Your task to perform on an android device: Add "alienware area 51" to the cart on bestbuy, then select checkout. Image 0: 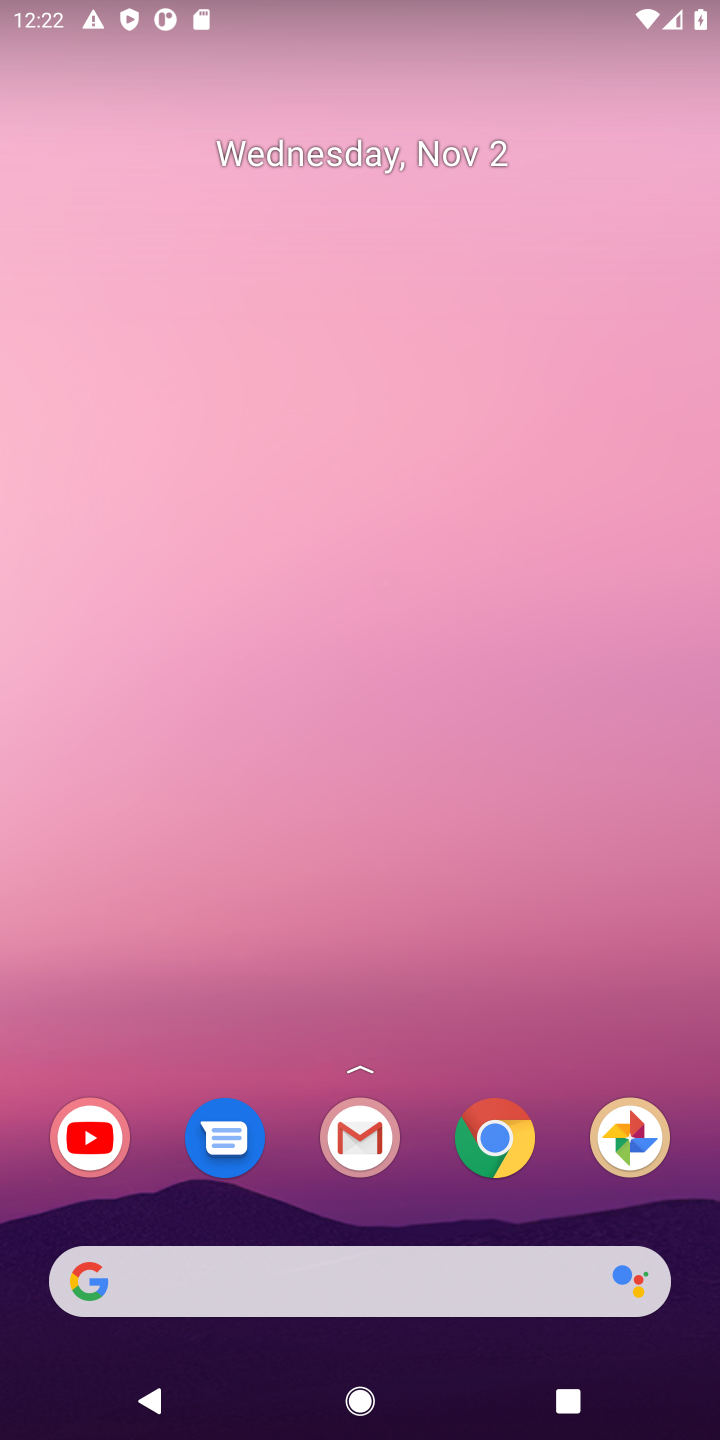
Step 0: press home button
Your task to perform on an android device: Add "alienware area 51" to the cart on bestbuy, then select checkout. Image 1: 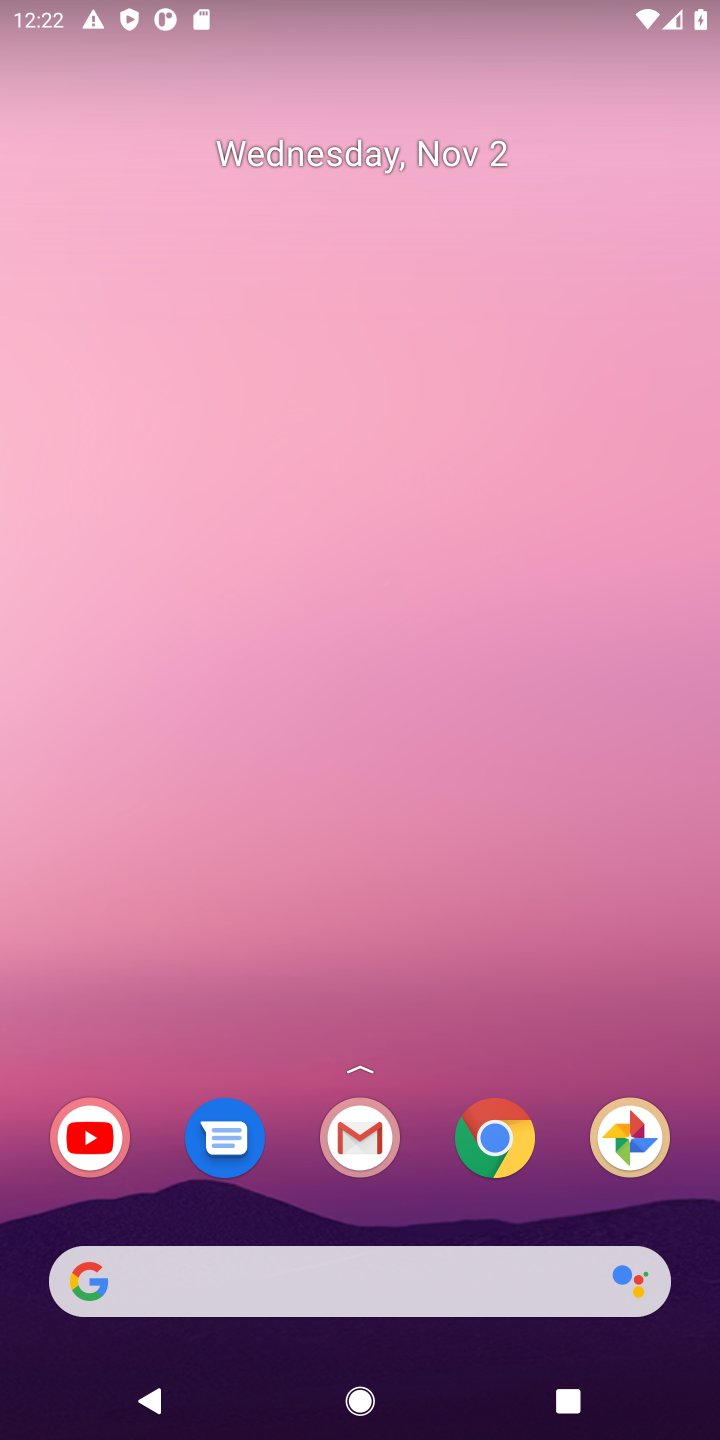
Step 1: click (142, 1276)
Your task to perform on an android device: Add "alienware area 51" to the cart on bestbuy, then select checkout. Image 2: 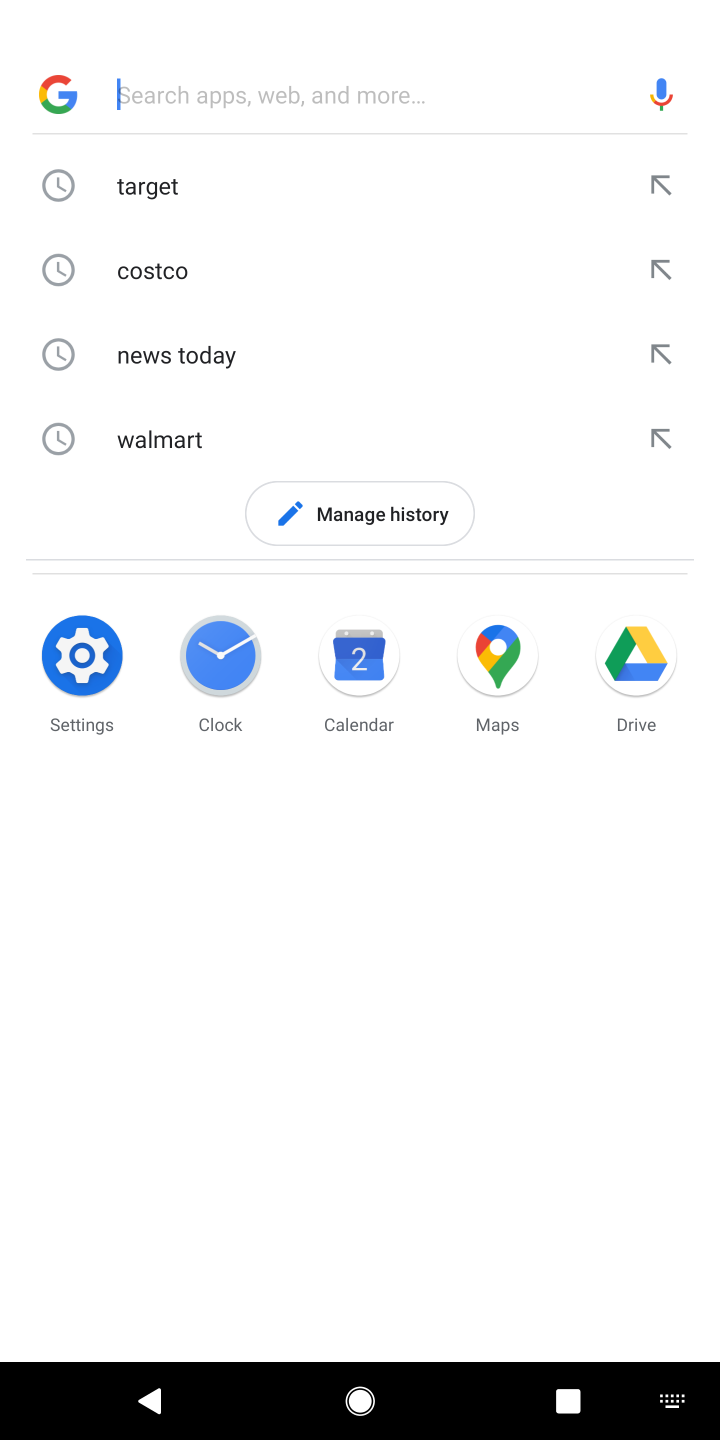
Step 2: type "bestbuy"
Your task to perform on an android device: Add "alienware area 51" to the cart on bestbuy, then select checkout. Image 3: 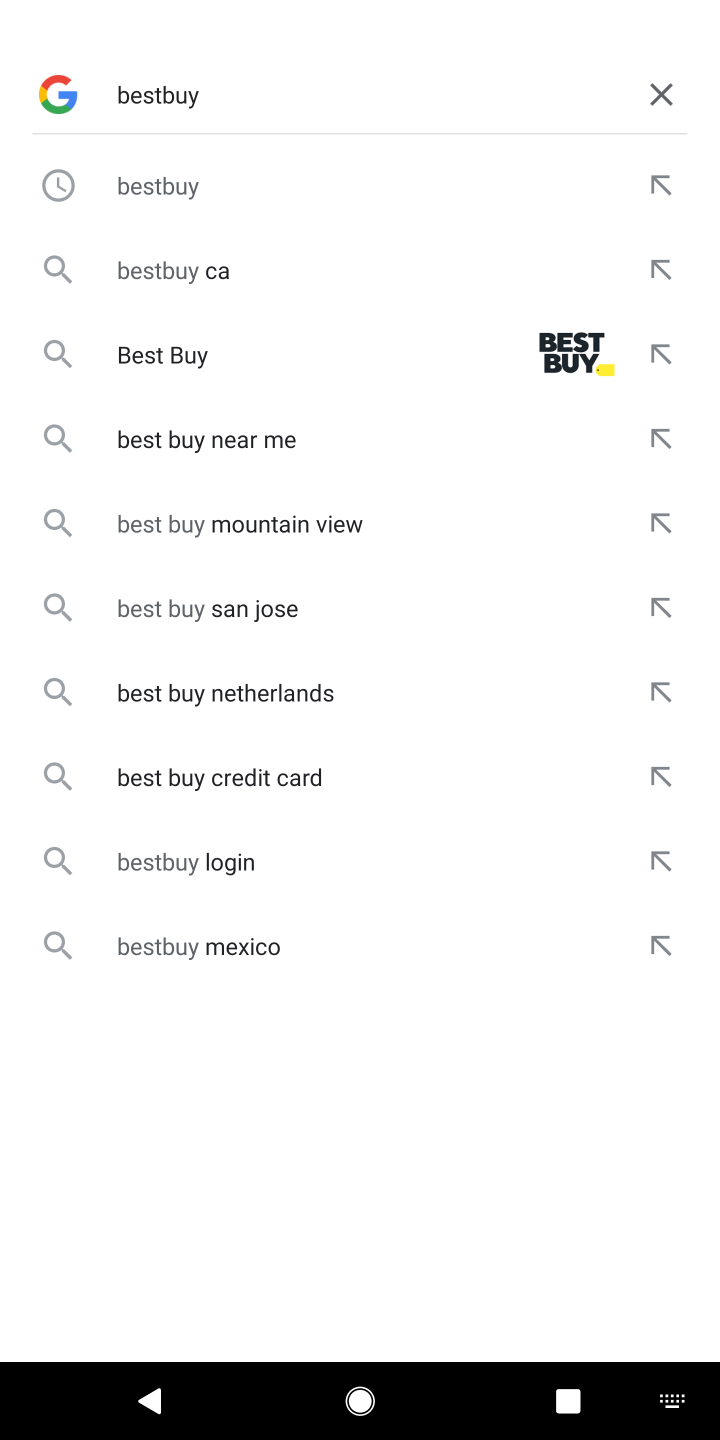
Step 3: press enter
Your task to perform on an android device: Add "alienware area 51" to the cart on bestbuy, then select checkout. Image 4: 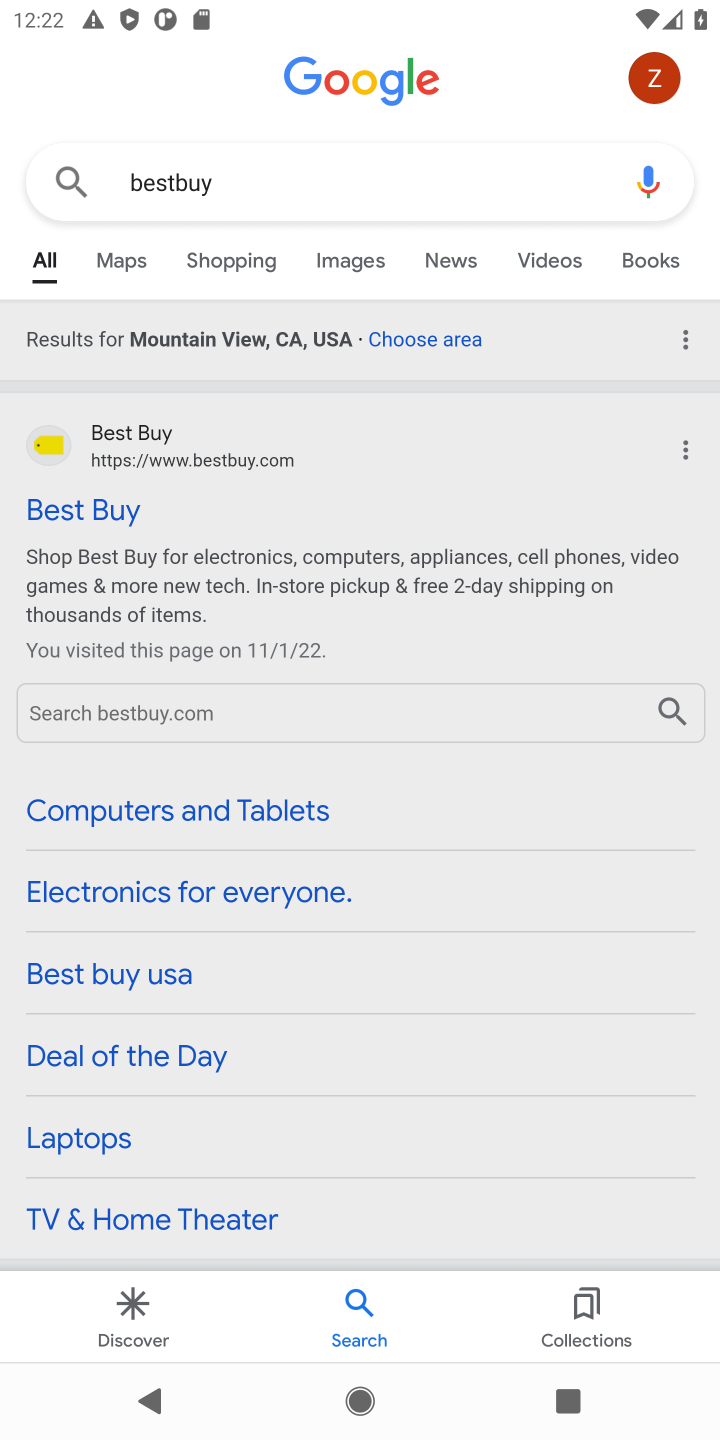
Step 4: click (104, 505)
Your task to perform on an android device: Add "alienware area 51" to the cart on bestbuy, then select checkout. Image 5: 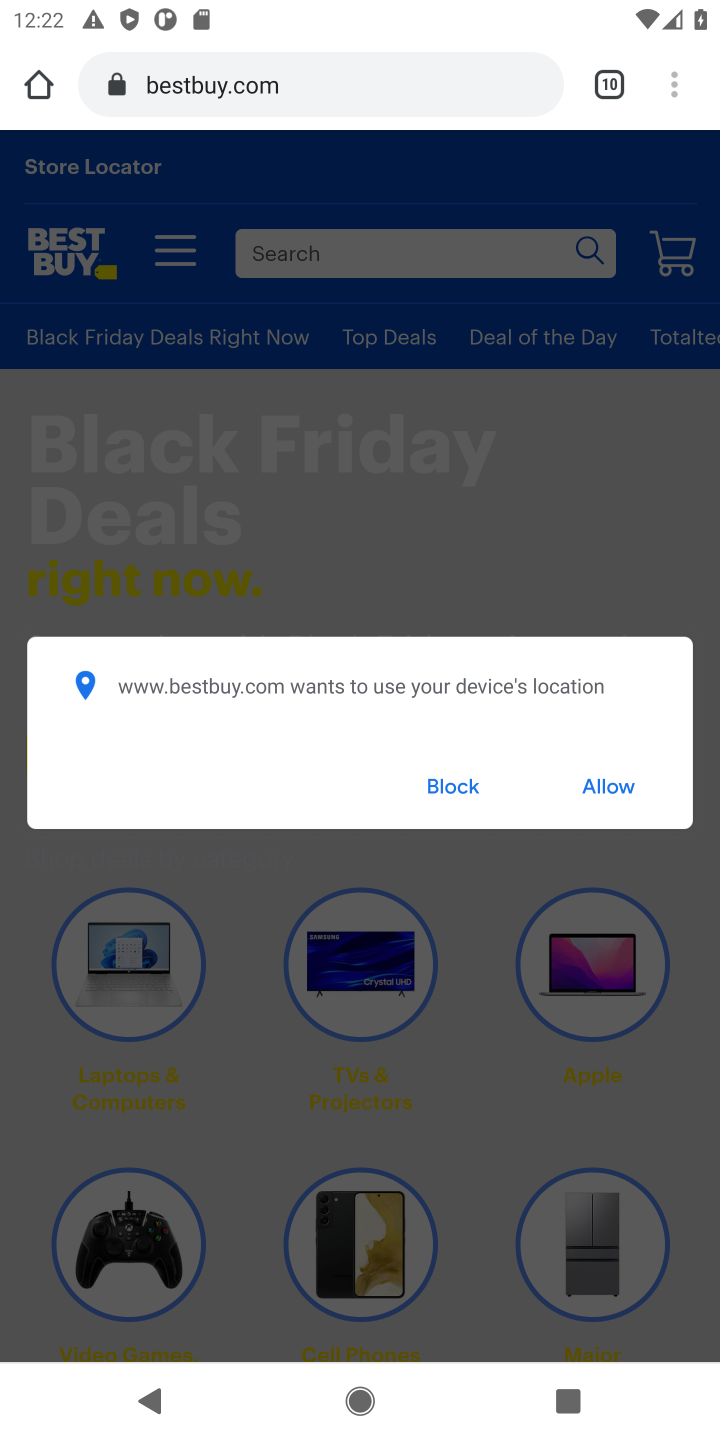
Step 5: click (463, 784)
Your task to perform on an android device: Add "alienware area 51" to the cart on bestbuy, then select checkout. Image 6: 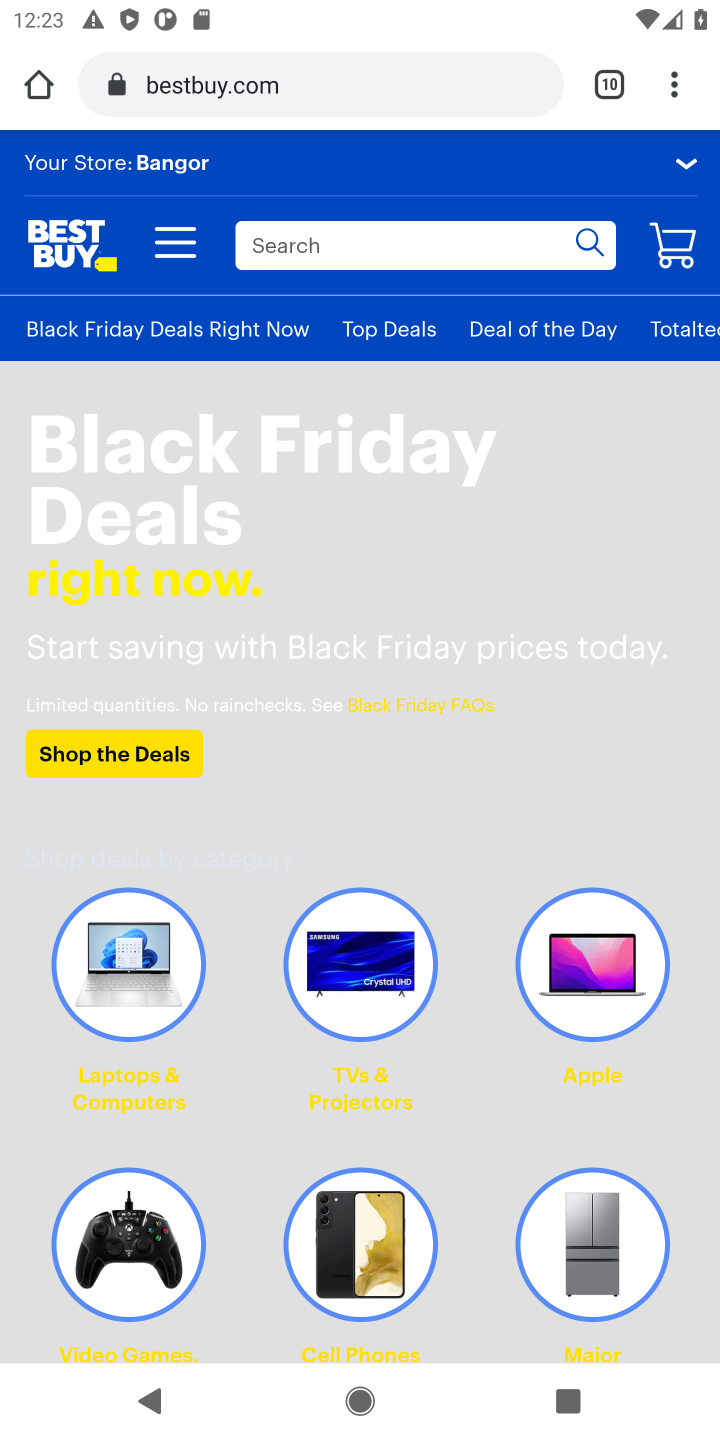
Step 6: click (271, 235)
Your task to perform on an android device: Add "alienware area 51" to the cart on bestbuy, then select checkout. Image 7: 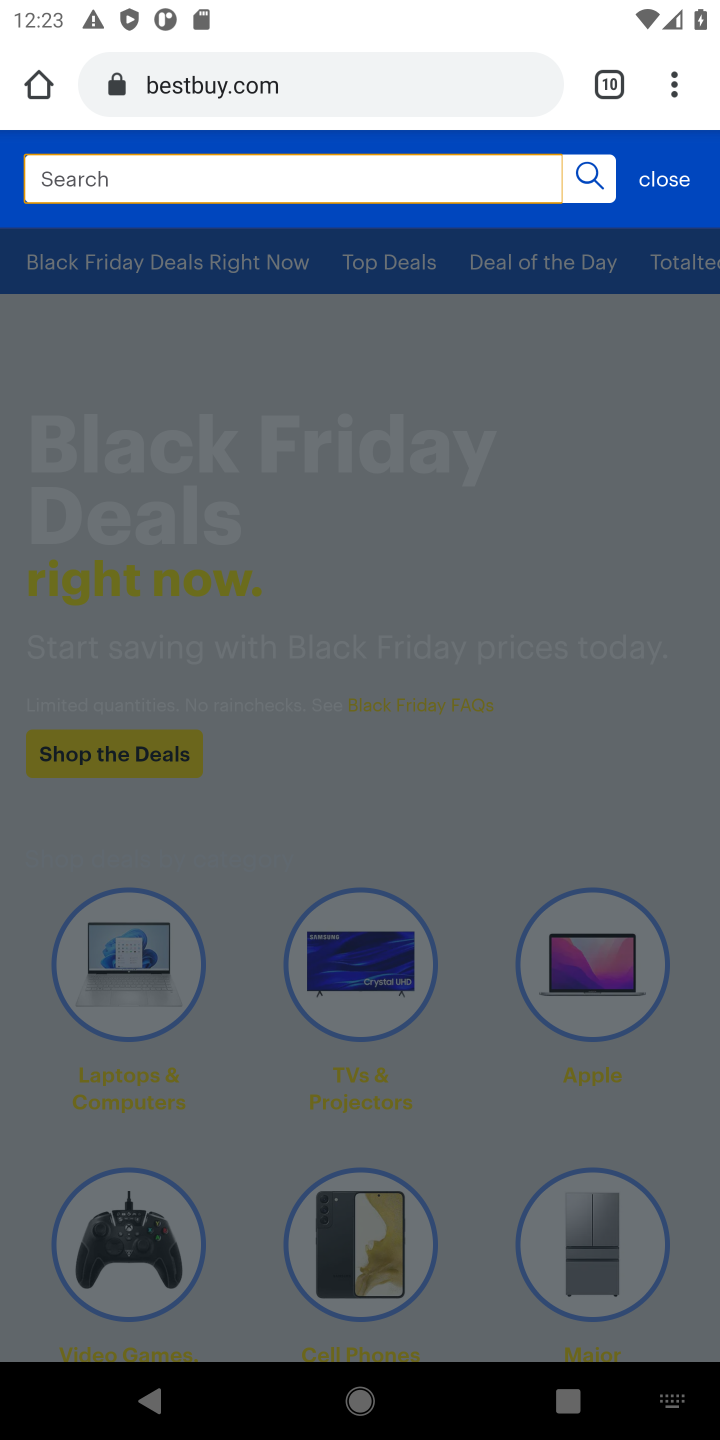
Step 7: type "alienware area 51"
Your task to perform on an android device: Add "alienware area 51" to the cart on bestbuy, then select checkout. Image 8: 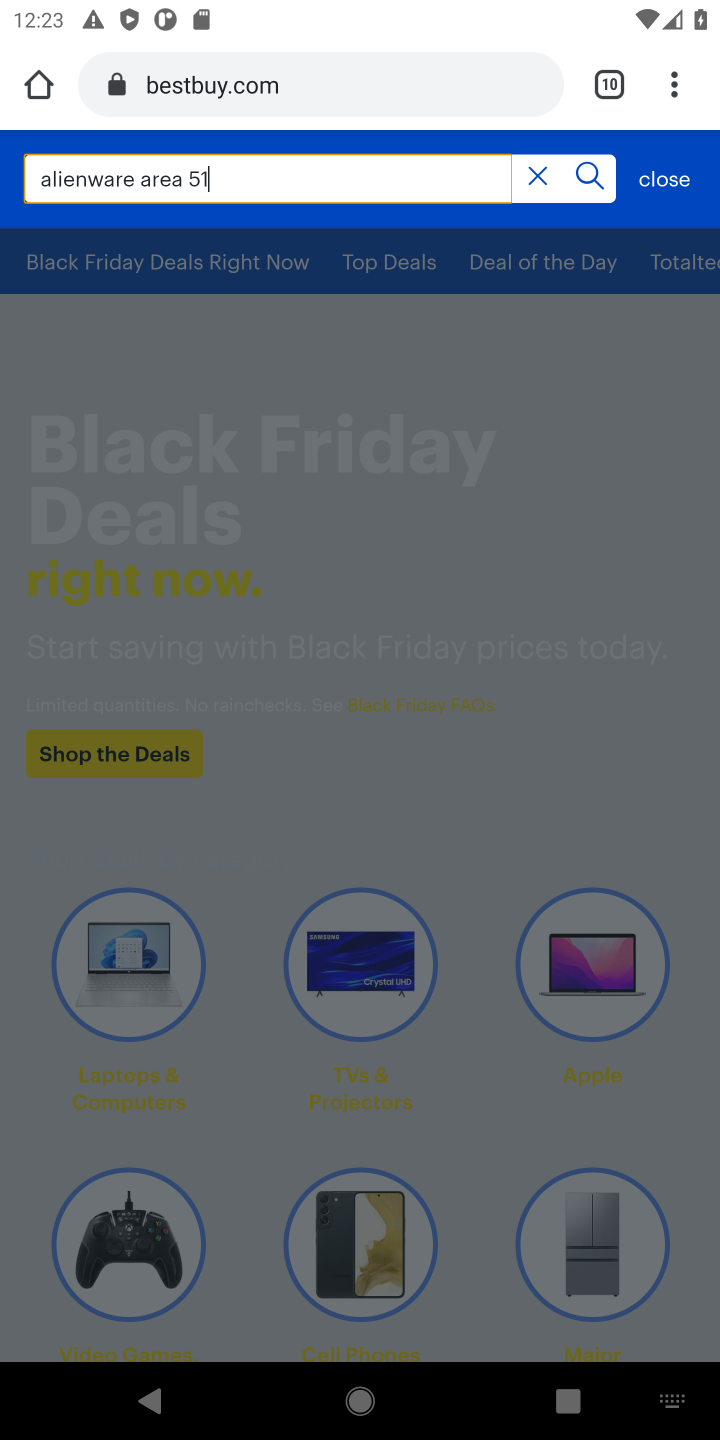
Step 8: press enter
Your task to perform on an android device: Add "alienware area 51" to the cart on bestbuy, then select checkout. Image 9: 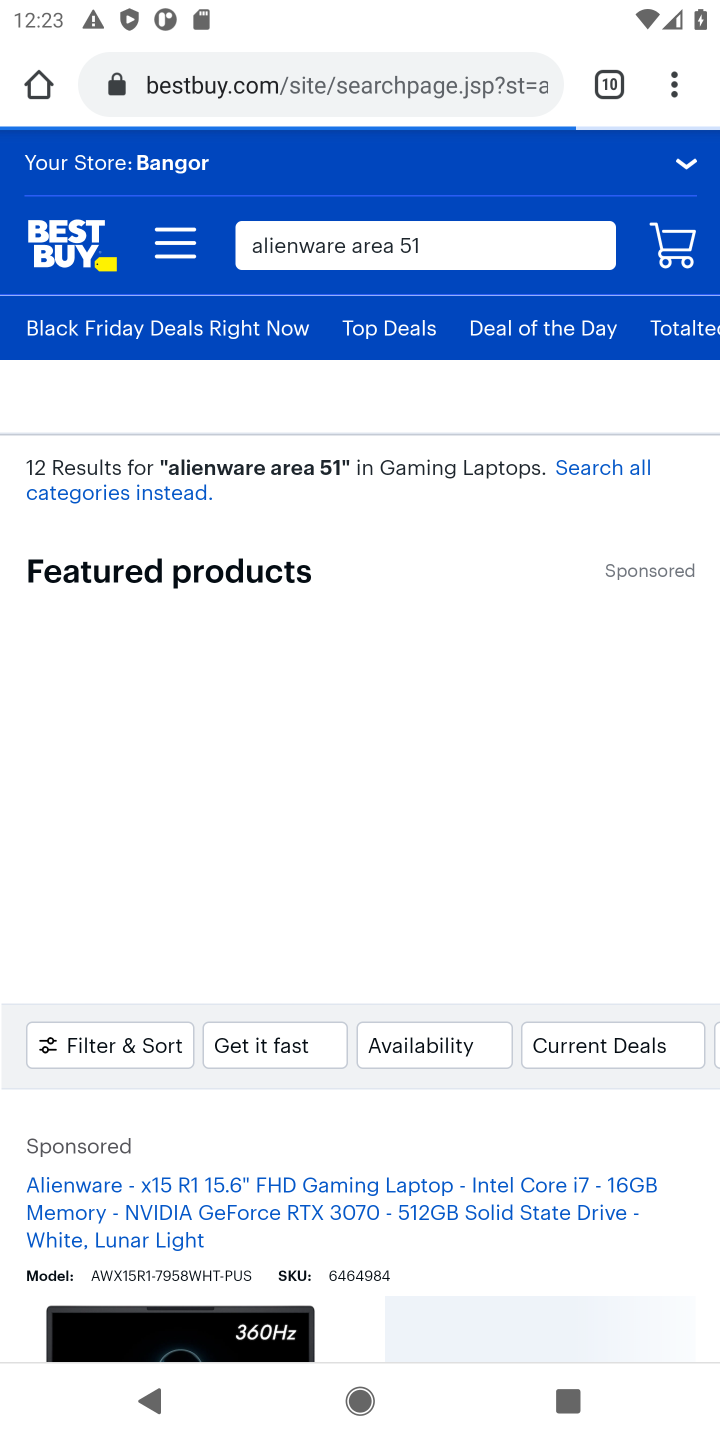
Step 9: task complete